Your task to perform on an android device: open app "Microsoft Excel" (install if not already installed), go to login, and select forgot password Image 0: 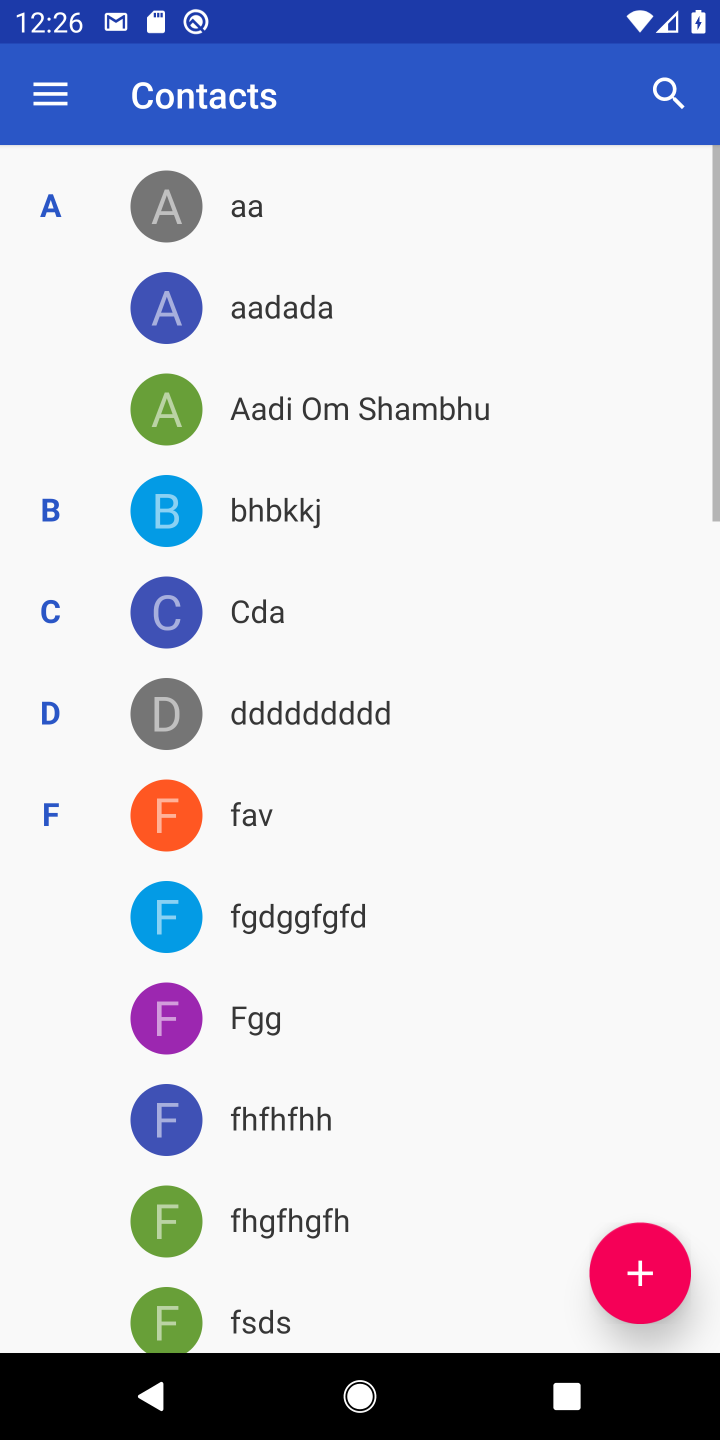
Step 0: press home button
Your task to perform on an android device: open app "Microsoft Excel" (install if not already installed), go to login, and select forgot password Image 1: 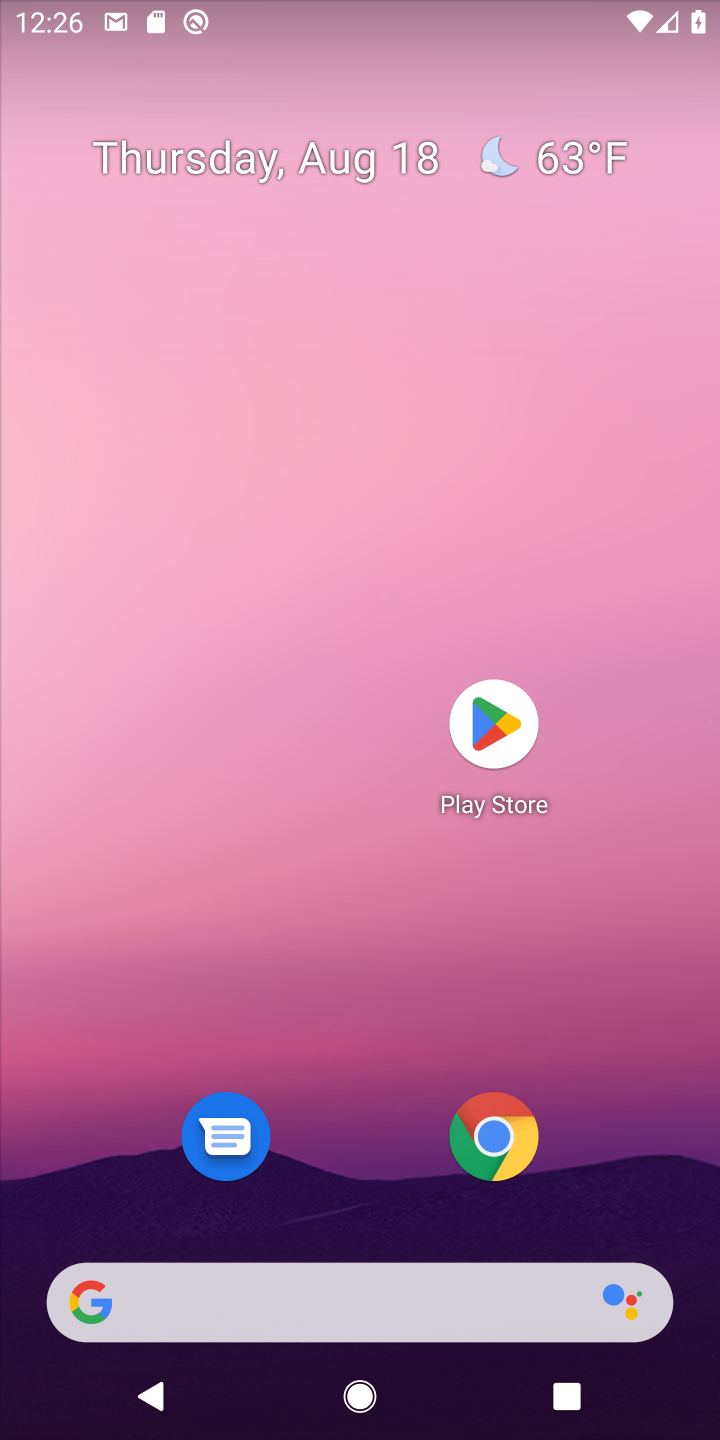
Step 1: click (488, 730)
Your task to perform on an android device: open app "Microsoft Excel" (install if not already installed), go to login, and select forgot password Image 2: 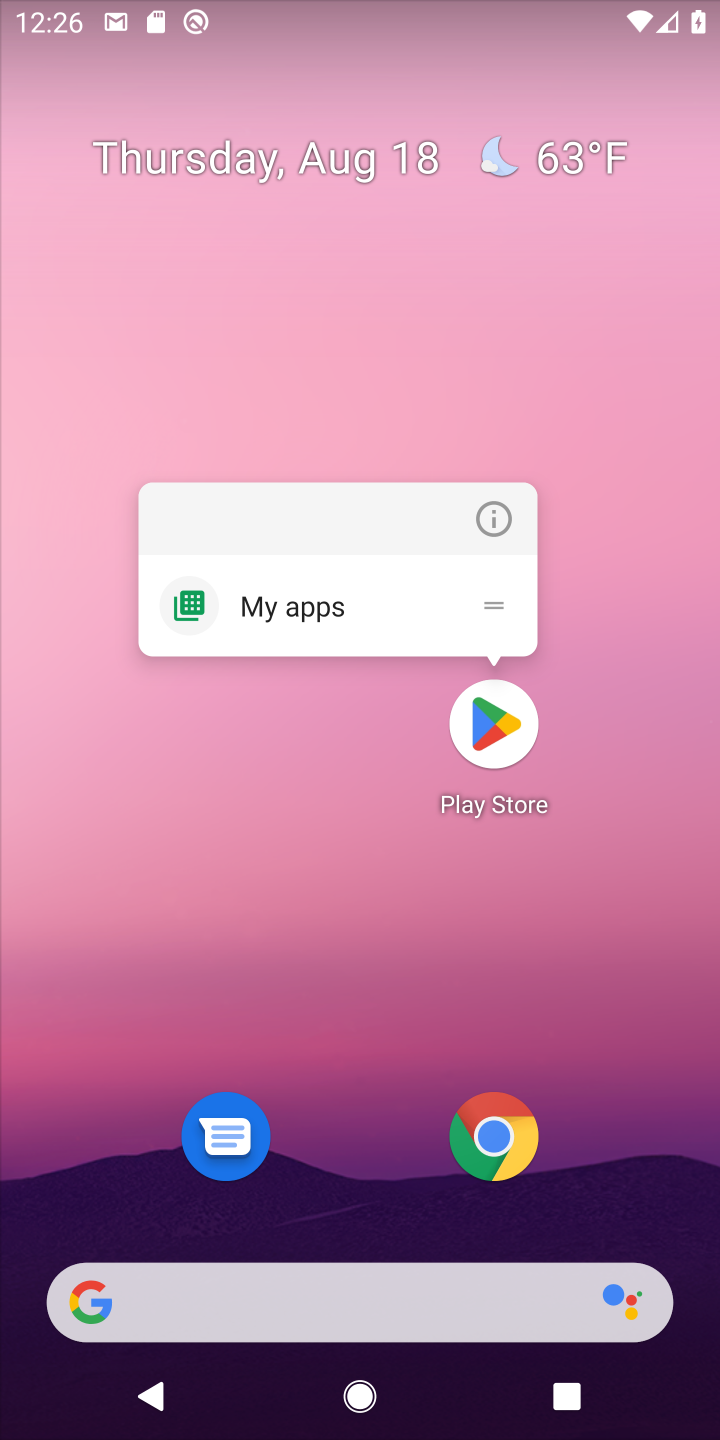
Step 2: click (488, 732)
Your task to perform on an android device: open app "Microsoft Excel" (install if not already installed), go to login, and select forgot password Image 3: 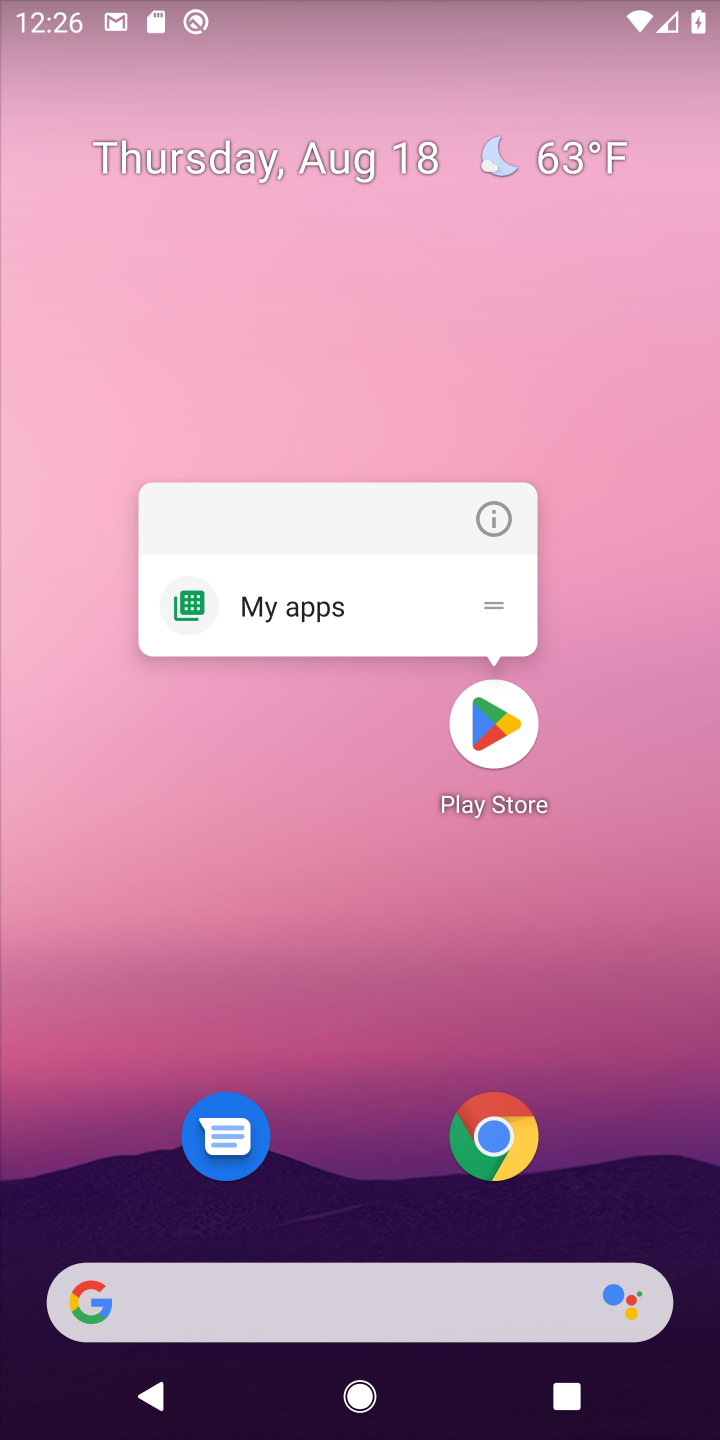
Step 3: click (488, 732)
Your task to perform on an android device: open app "Microsoft Excel" (install if not already installed), go to login, and select forgot password Image 4: 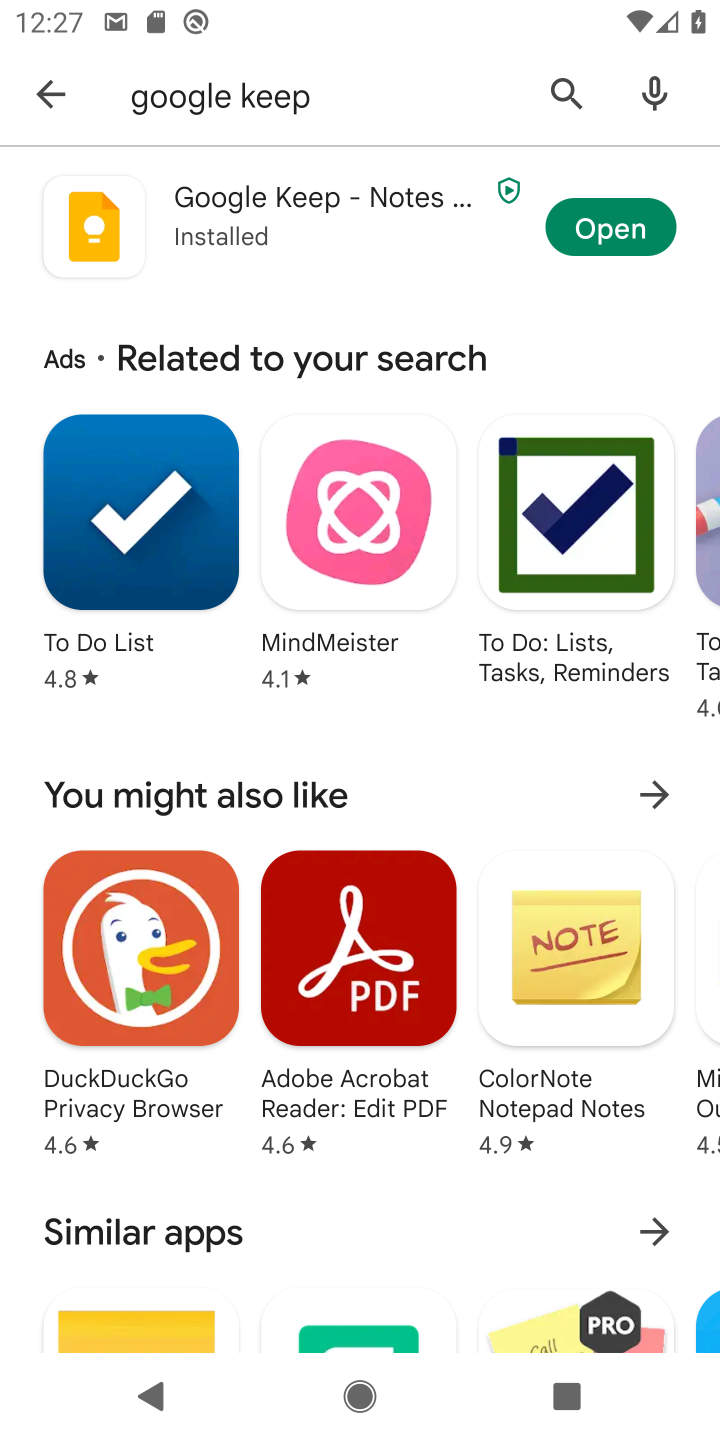
Step 4: click (561, 94)
Your task to perform on an android device: open app "Microsoft Excel" (install if not already installed), go to login, and select forgot password Image 5: 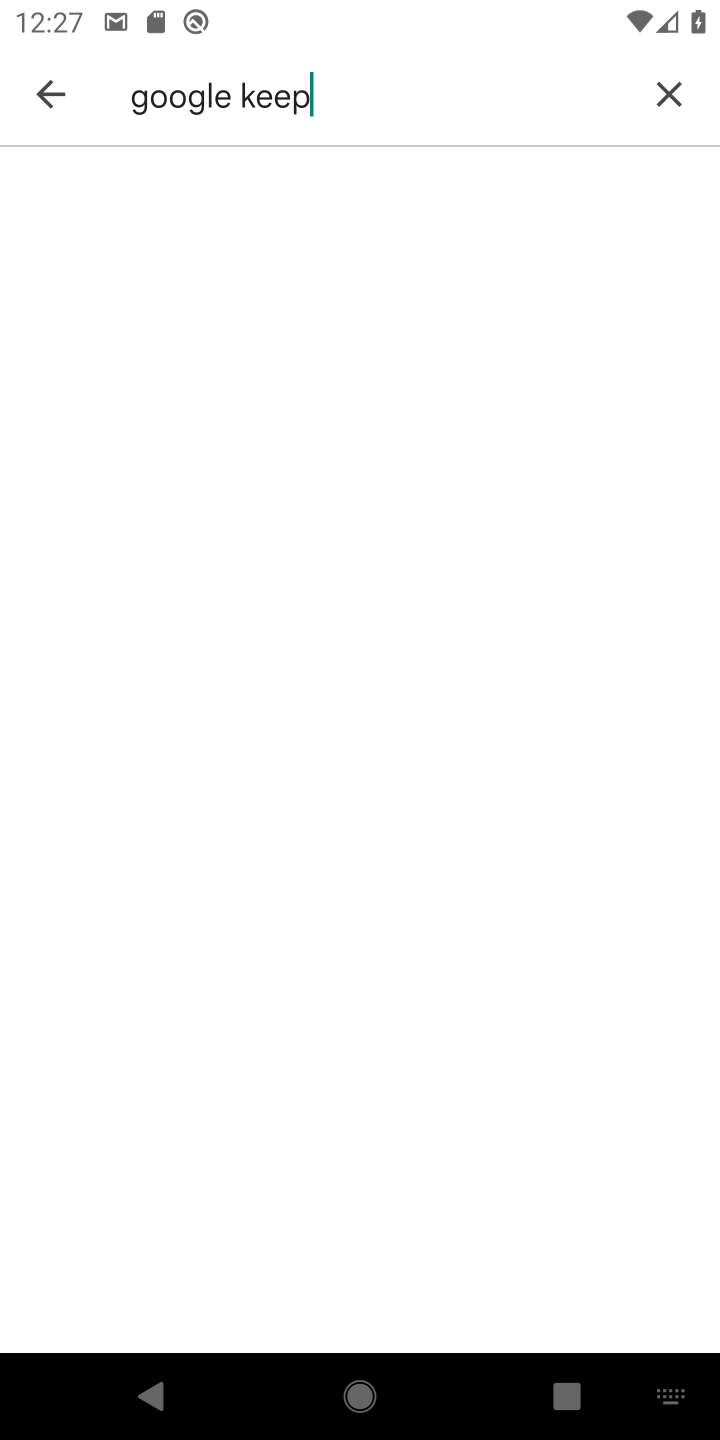
Step 5: click (669, 85)
Your task to perform on an android device: open app "Microsoft Excel" (install if not already installed), go to login, and select forgot password Image 6: 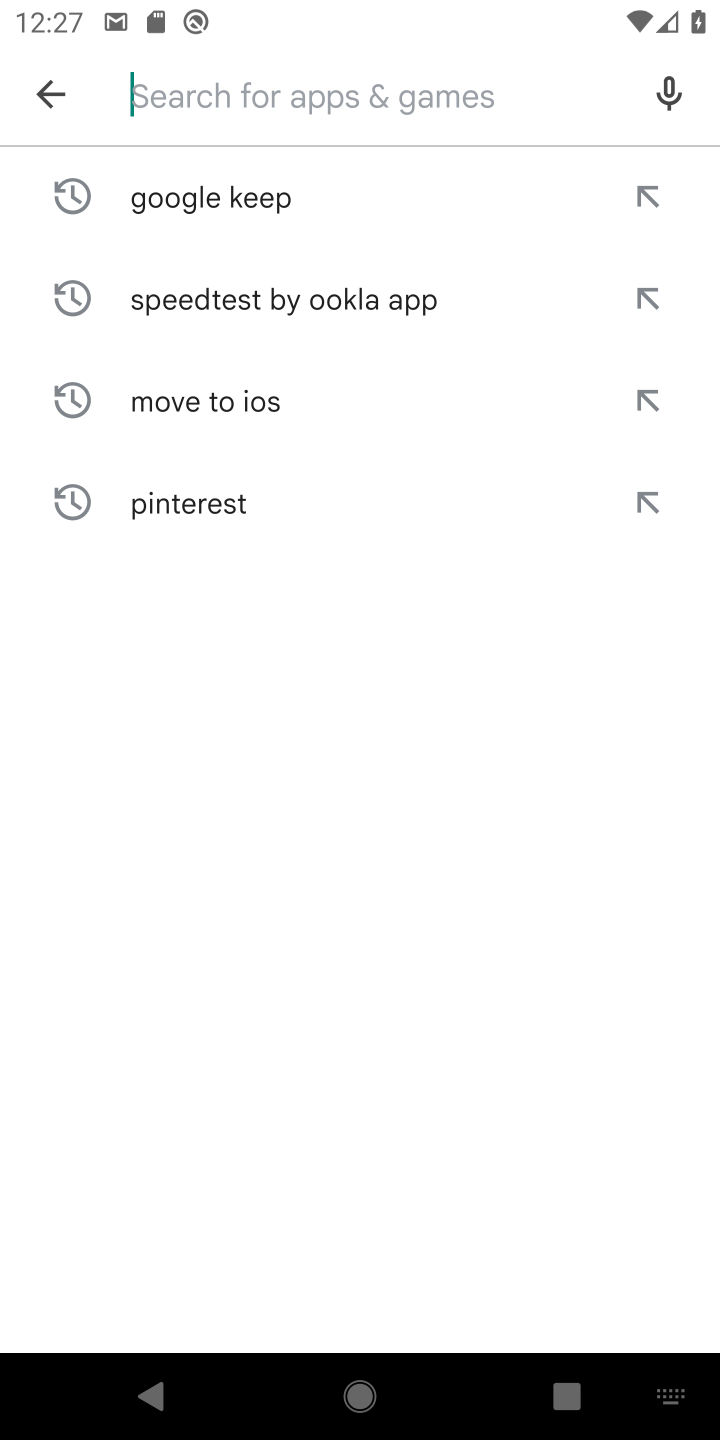
Step 6: type "Microsoft Excel"
Your task to perform on an android device: open app "Microsoft Excel" (install if not already installed), go to login, and select forgot password Image 7: 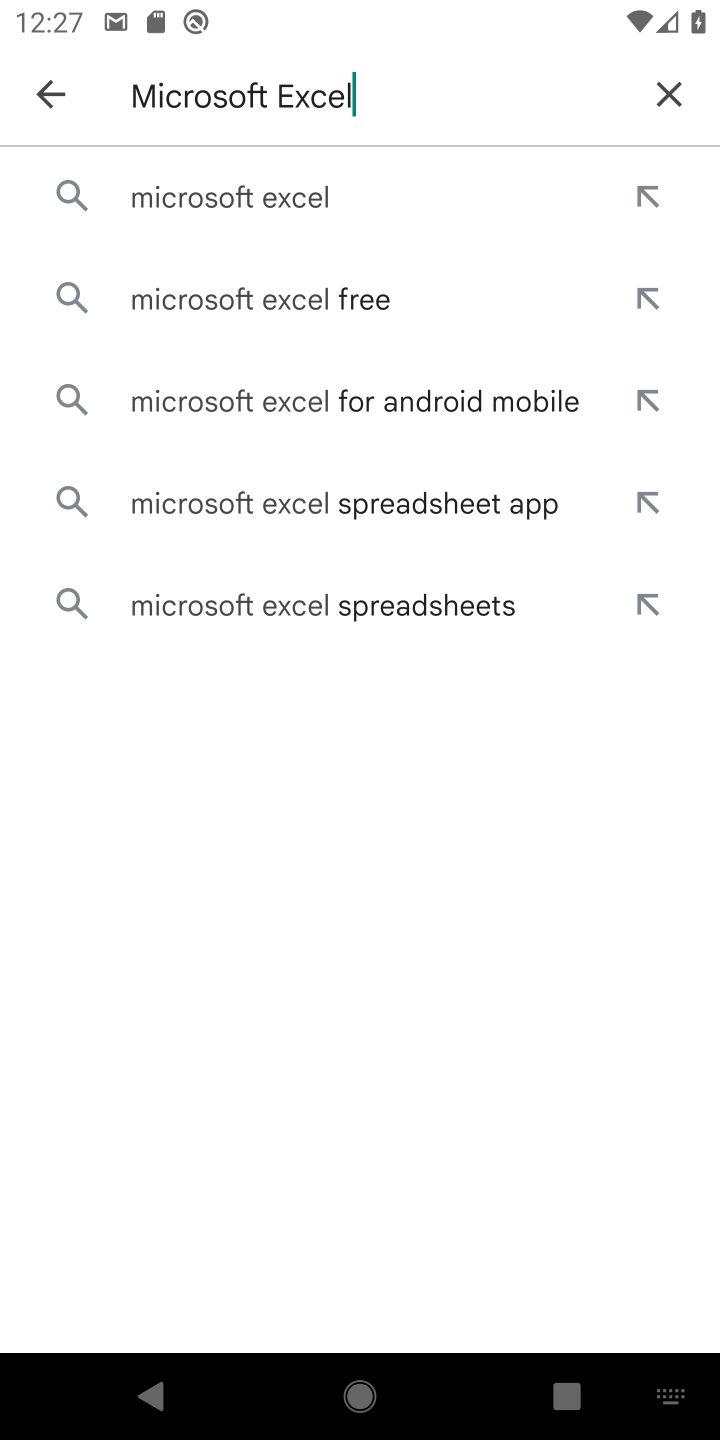
Step 7: click (287, 194)
Your task to perform on an android device: open app "Microsoft Excel" (install if not already installed), go to login, and select forgot password Image 8: 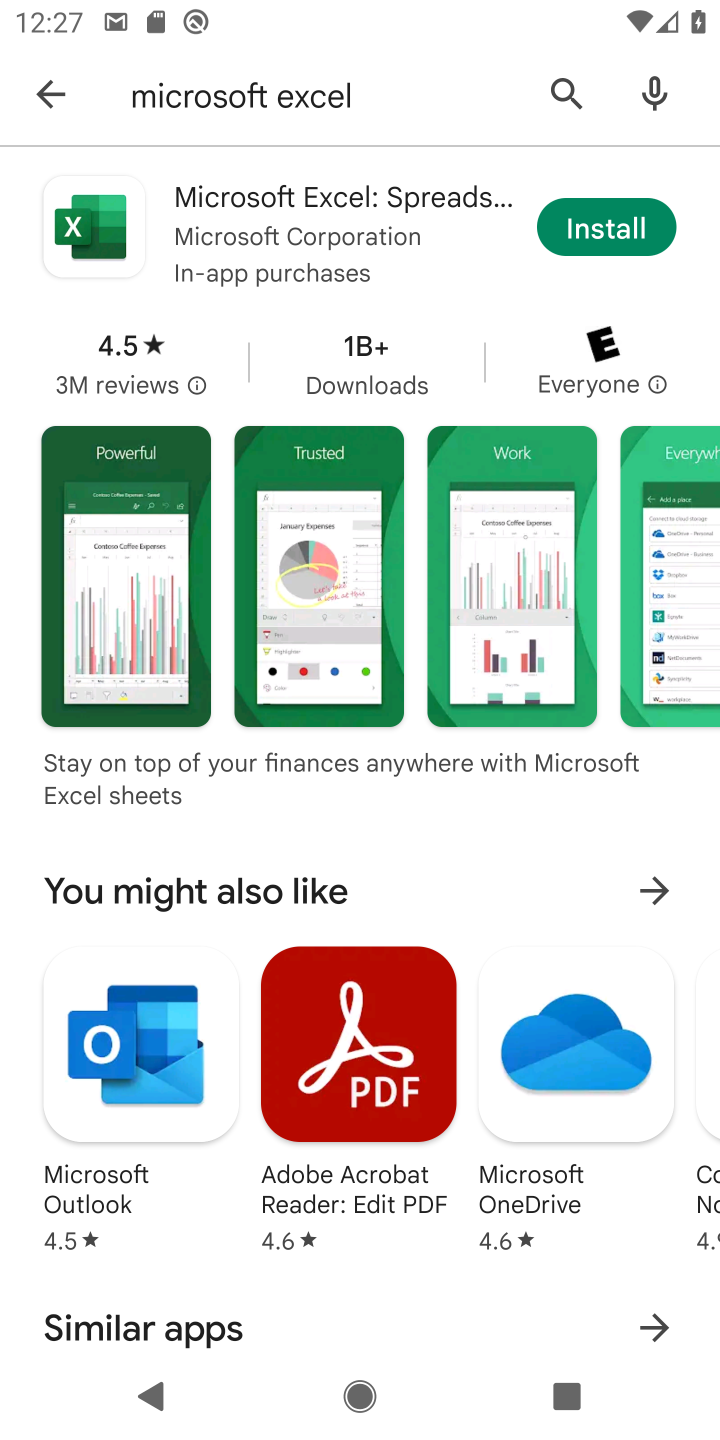
Step 8: click (634, 233)
Your task to perform on an android device: open app "Microsoft Excel" (install if not already installed), go to login, and select forgot password Image 9: 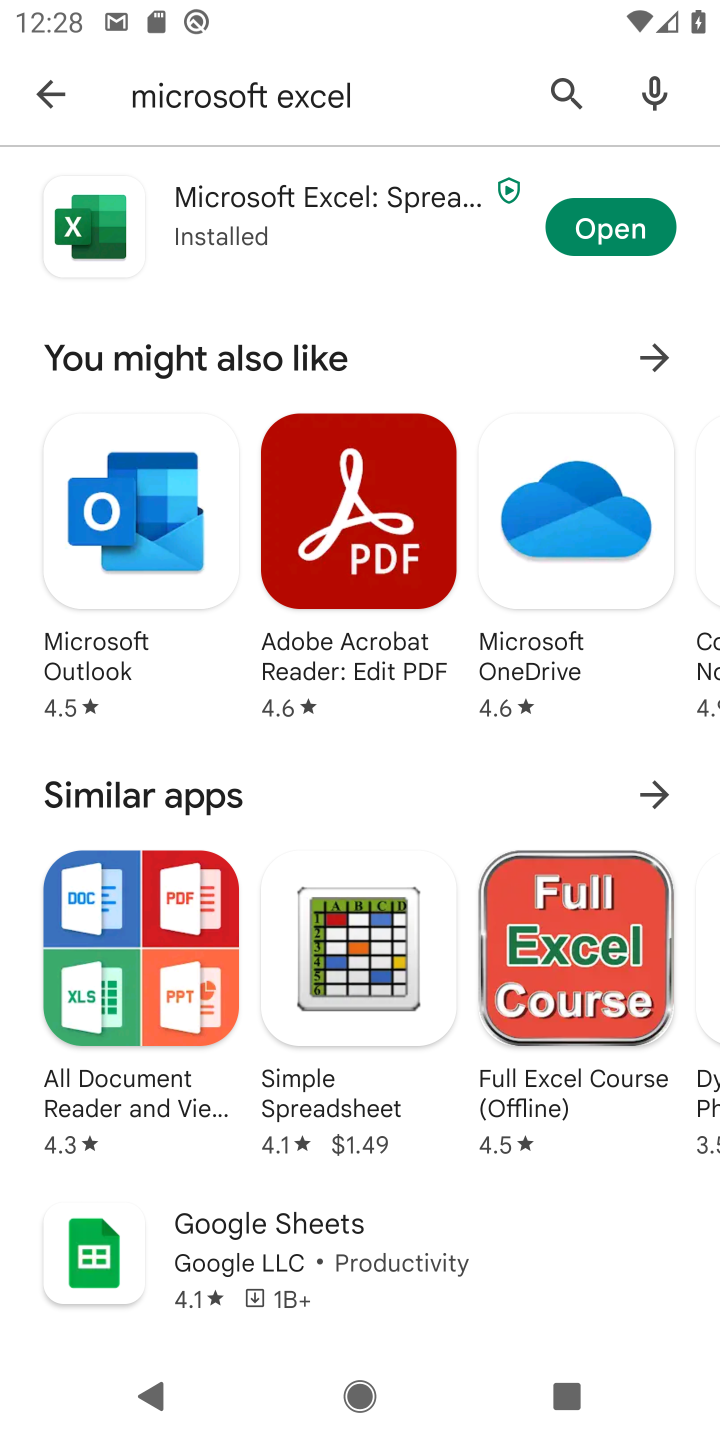
Step 9: click (596, 233)
Your task to perform on an android device: open app "Microsoft Excel" (install if not already installed), go to login, and select forgot password Image 10: 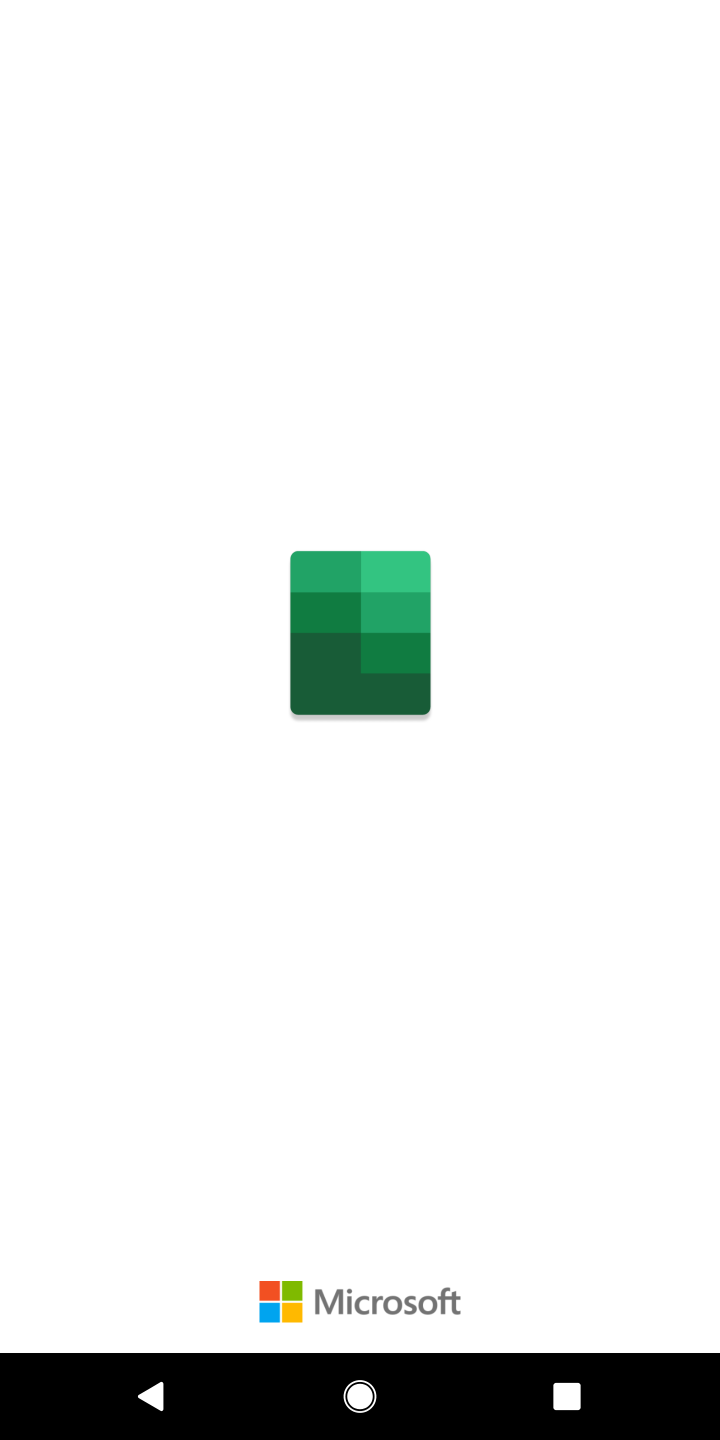
Step 10: task complete